Your task to perform on an android device: Open maps Image 0: 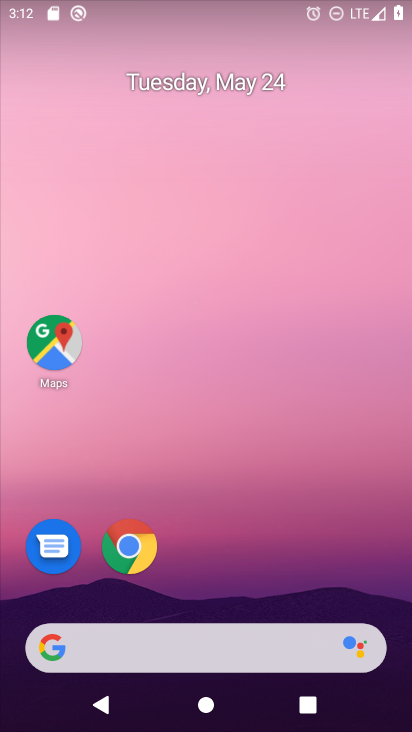
Step 0: drag from (112, 542) to (134, 41)
Your task to perform on an android device: Open maps Image 1: 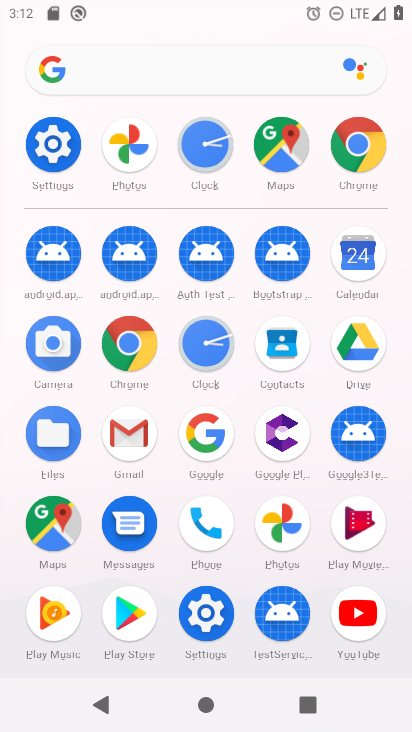
Step 1: click (58, 534)
Your task to perform on an android device: Open maps Image 2: 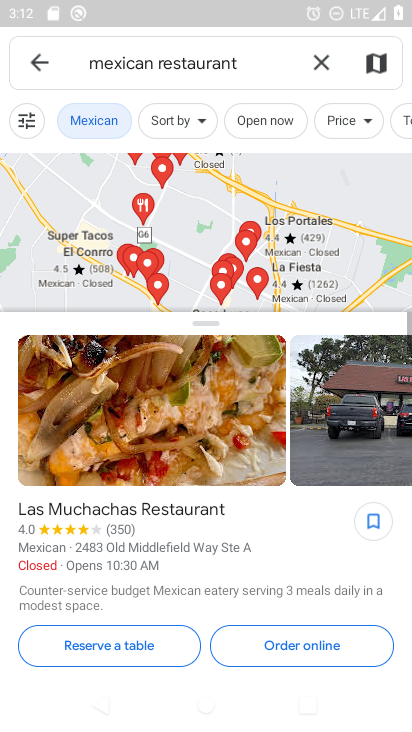
Step 2: task complete